Your task to perform on an android device: Open calendar and show me the first week of next month Image 0: 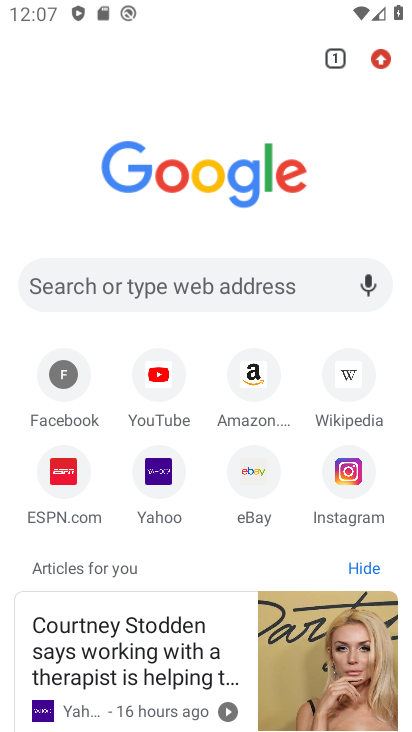
Step 0: press home button
Your task to perform on an android device: Open calendar and show me the first week of next month Image 1: 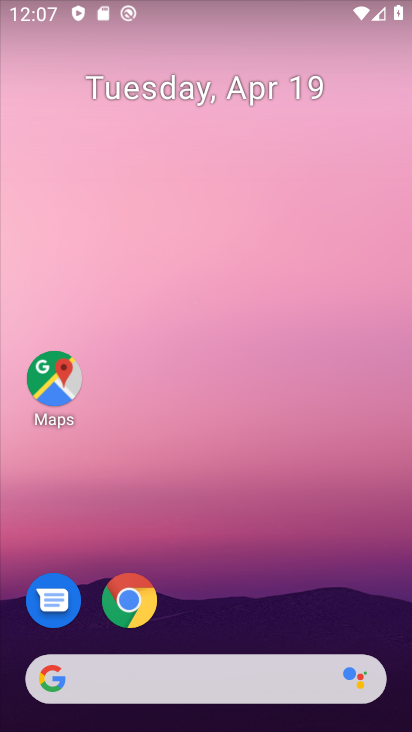
Step 1: drag from (309, 443) to (392, 19)
Your task to perform on an android device: Open calendar and show me the first week of next month Image 2: 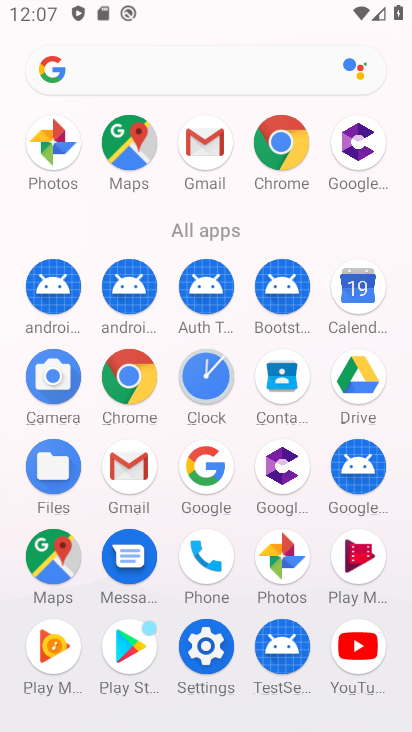
Step 2: click (375, 325)
Your task to perform on an android device: Open calendar and show me the first week of next month Image 3: 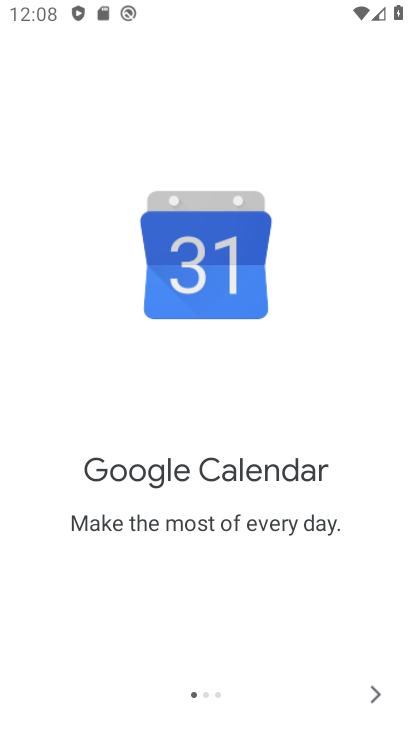
Step 3: click (373, 704)
Your task to perform on an android device: Open calendar and show me the first week of next month Image 4: 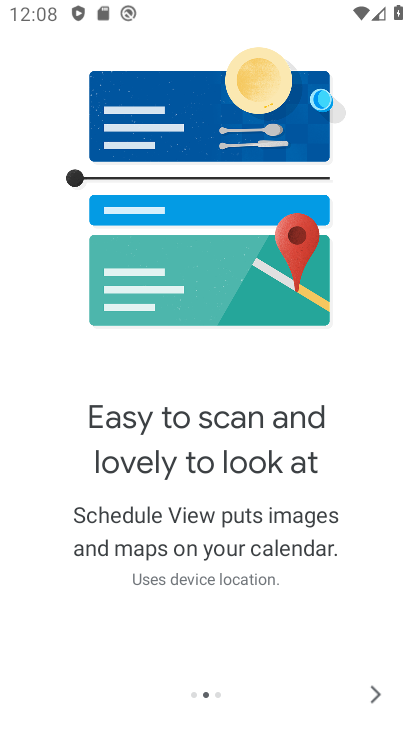
Step 4: click (371, 702)
Your task to perform on an android device: Open calendar and show me the first week of next month Image 5: 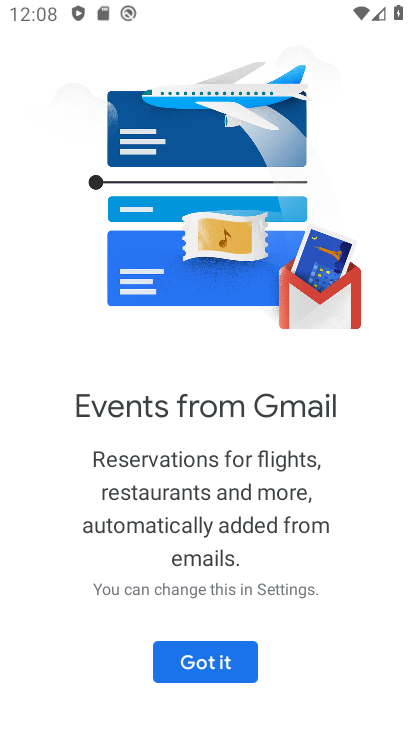
Step 5: click (214, 662)
Your task to perform on an android device: Open calendar and show me the first week of next month Image 6: 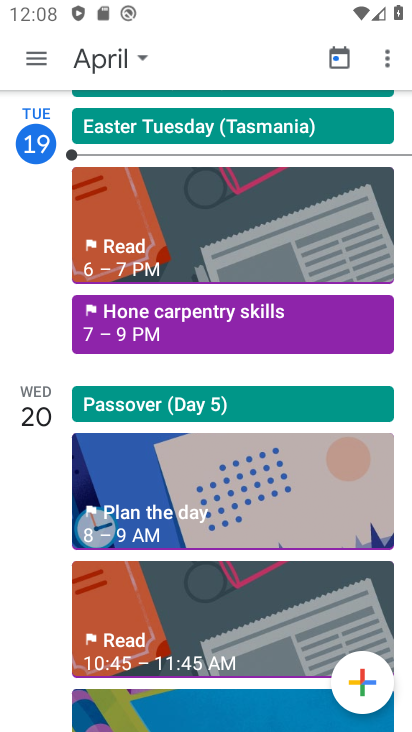
Step 6: click (127, 74)
Your task to perform on an android device: Open calendar and show me the first week of next month Image 7: 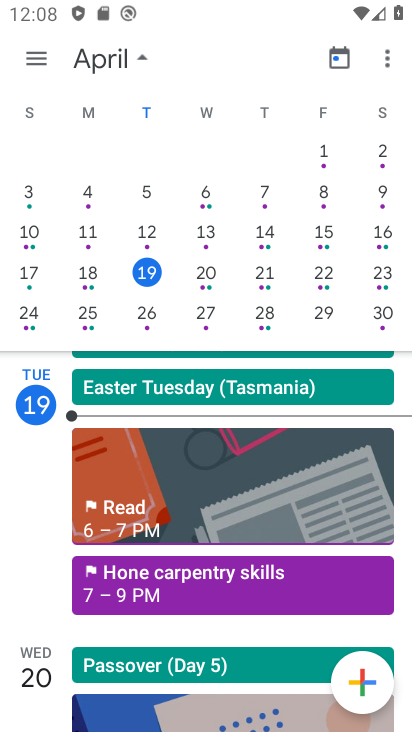
Step 7: drag from (384, 237) to (46, 210)
Your task to perform on an android device: Open calendar and show me the first week of next month Image 8: 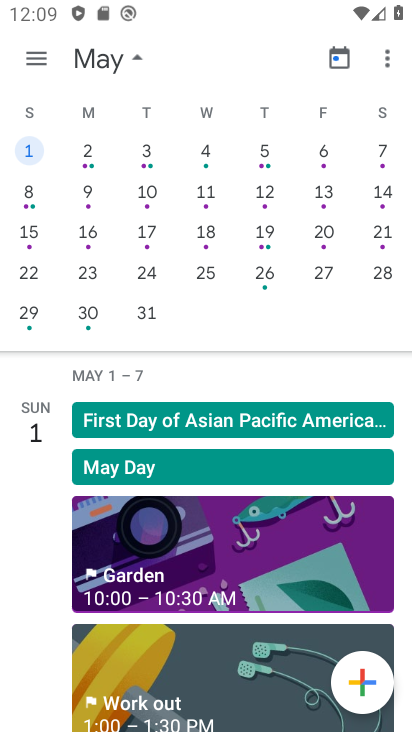
Step 8: click (383, 152)
Your task to perform on an android device: Open calendar and show me the first week of next month Image 9: 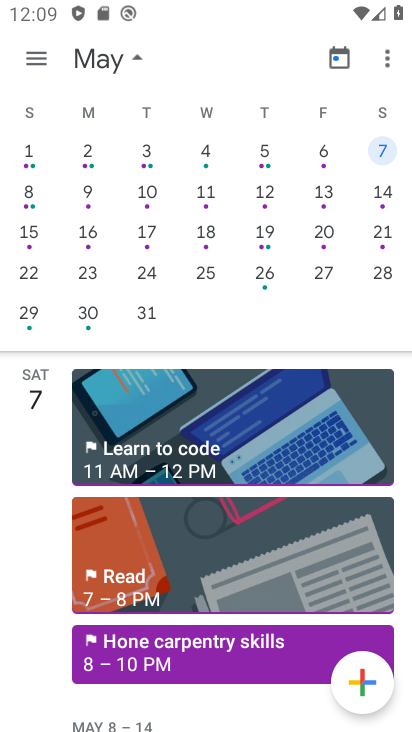
Step 9: task complete